Your task to perform on an android device: check the backup settings in the google photos Image 0: 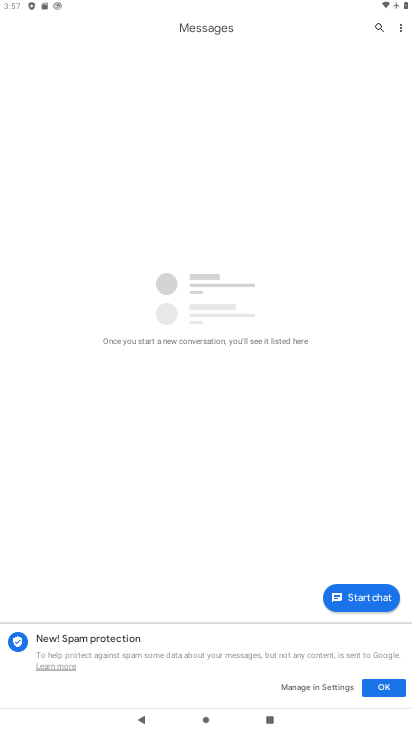
Step 0: press home button
Your task to perform on an android device: check the backup settings in the google photos Image 1: 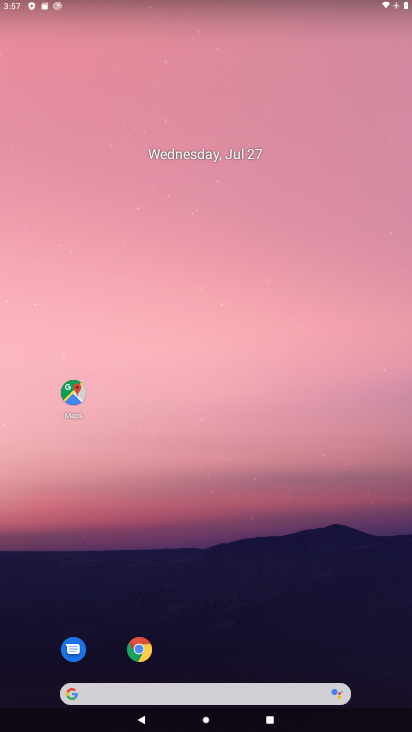
Step 1: drag from (196, 633) to (194, 28)
Your task to perform on an android device: check the backup settings in the google photos Image 2: 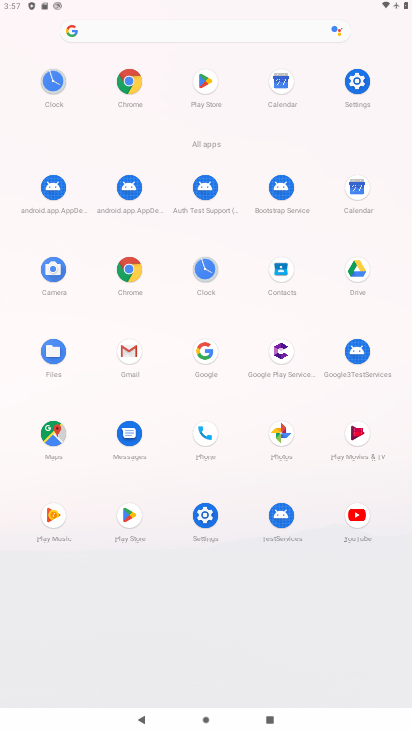
Step 2: click (273, 431)
Your task to perform on an android device: check the backup settings in the google photos Image 3: 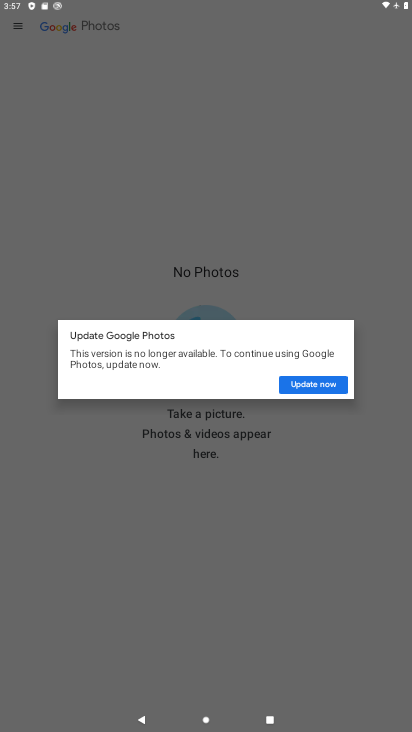
Step 3: click (301, 386)
Your task to perform on an android device: check the backup settings in the google photos Image 4: 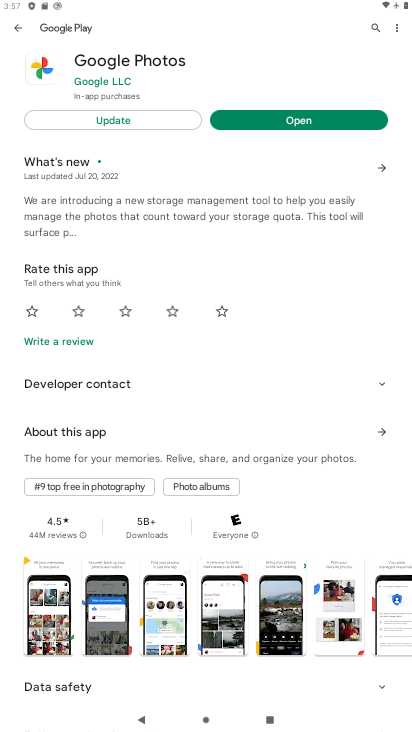
Step 4: click (162, 119)
Your task to perform on an android device: check the backup settings in the google photos Image 5: 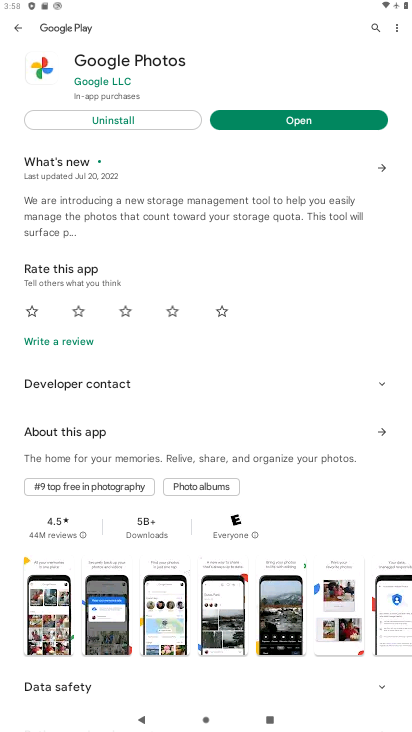
Step 5: click (270, 122)
Your task to perform on an android device: check the backup settings in the google photos Image 6: 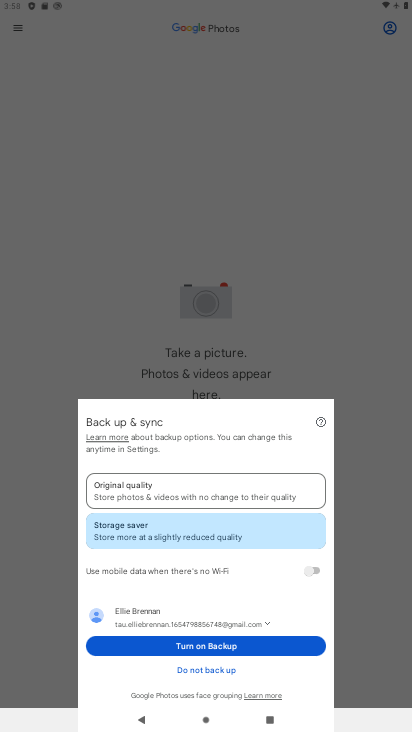
Step 6: click (249, 649)
Your task to perform on an android device: check the backup settings in the google photos Image 7: 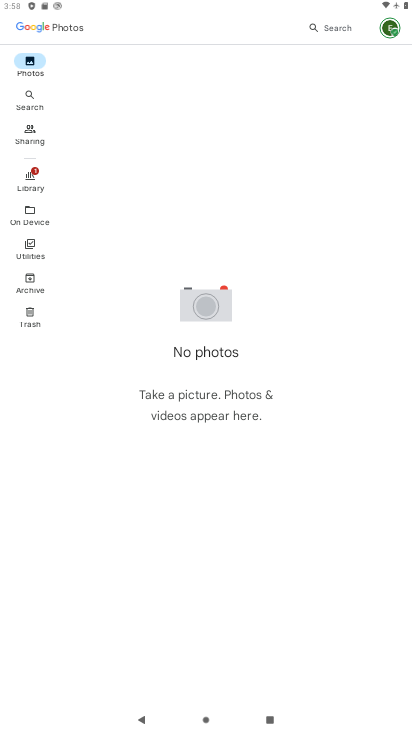
Step 7: click (392, 28)
Your task to perform on an android device: check the backup settings in the google photos Image 8: 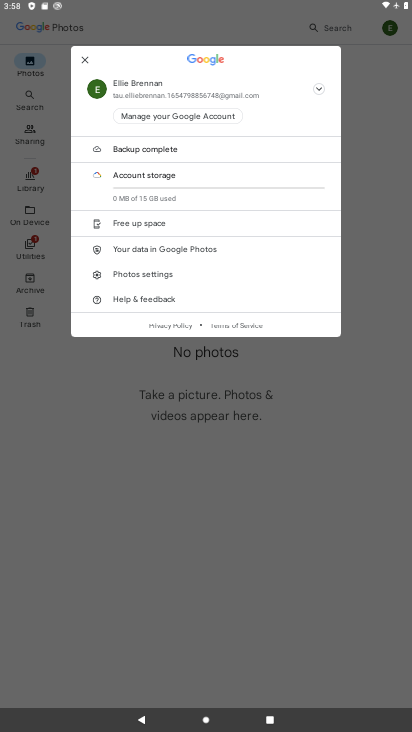
Step 8: click (166, 273)
Your task to perform on an android device: check the backup settings in the google photos Image 9: 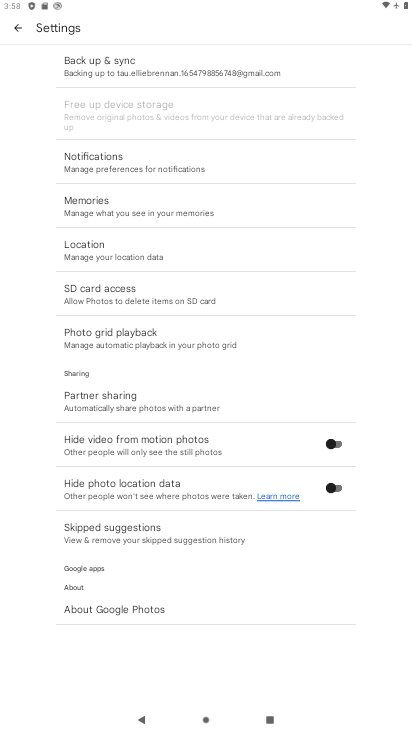
Step 9: click (136, 73)
Your task to perform on an android device: check the backup settings in the google photos Image 10: 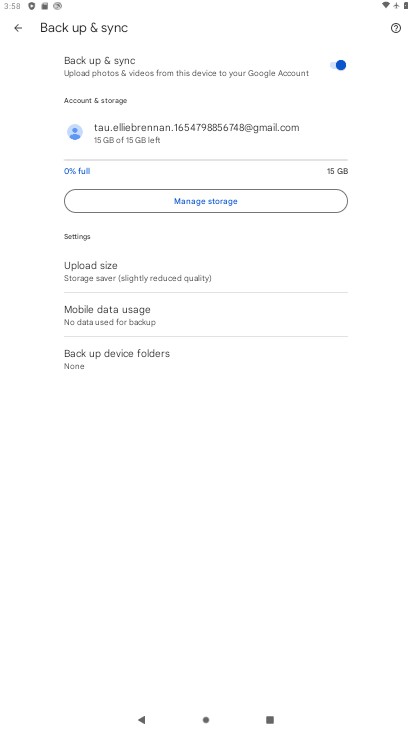
Step 10: task complete